Your task to perform on an android device: Open display settings Image 0: 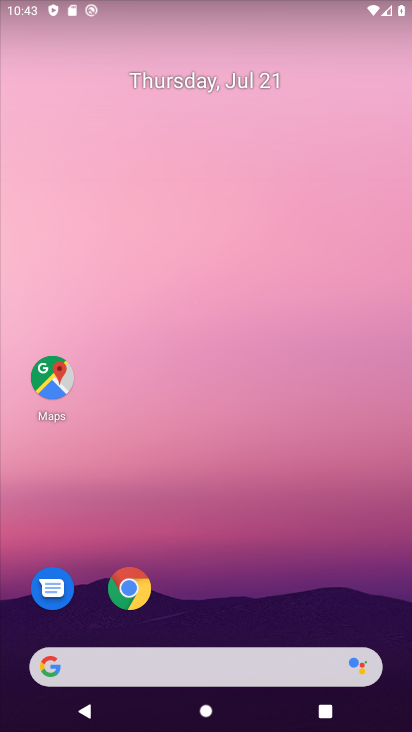
Step 0: drag from (306, 620) to (307, 0)
Your task to perform on an android device: Open display settings Image 1: 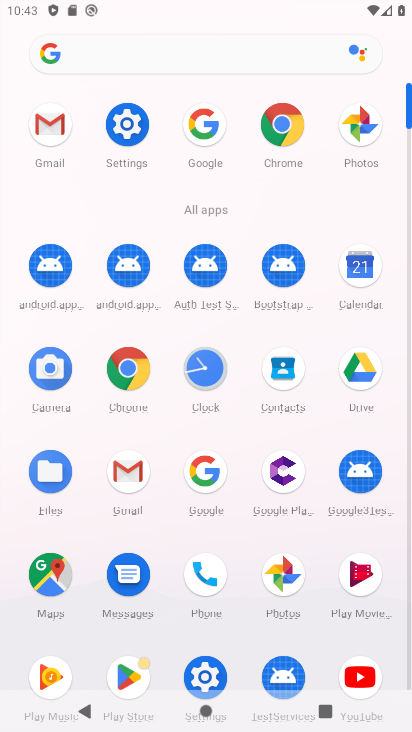
Step 1: click (133, 133)
Your task to perform on an android device: Open display settings Image 2: 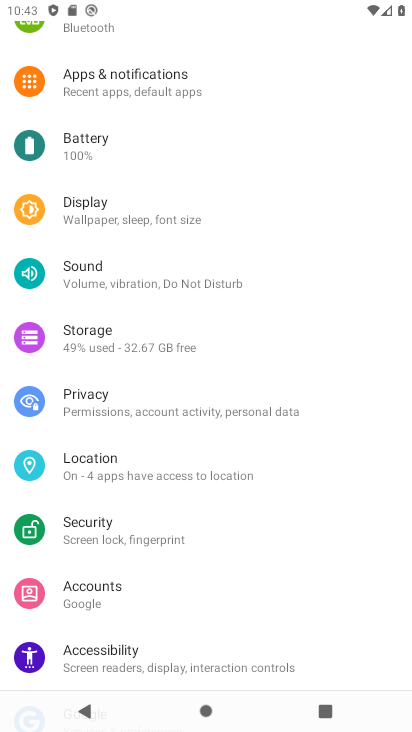
Step 2: click (149, 222)
Your task to perform on an android device: Open display settings Image 3: 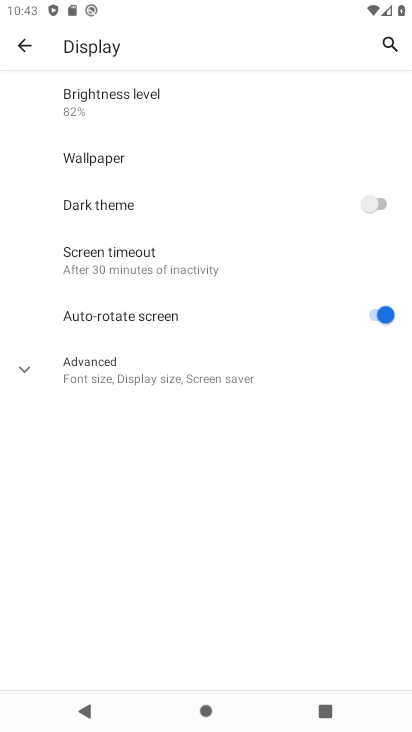
Step 3: task complete